Your task to perform on an android device: open app "Adobe Acrobat Reader: Edit PDF" Image 0: 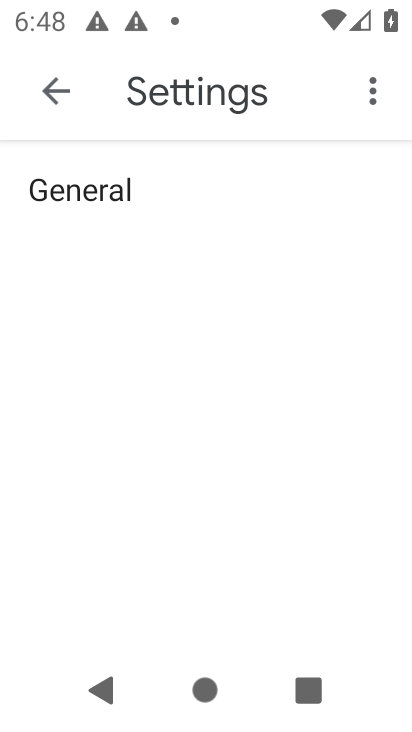
Step 0: press home button
Your task to perform on an android device: open app "Adobe Acrobat Reader: Edit PDF" Image 1: 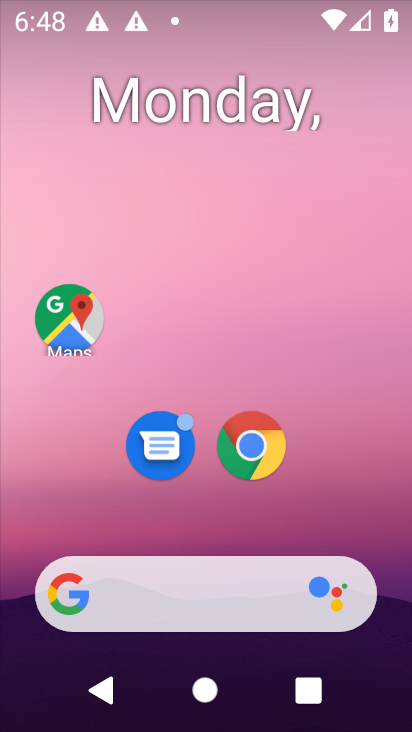
Step 1: drag from (363, 540) to (297, 50)
Your task to perform on an android device: open app "Adobe Acrobat Reader: Edit PDF" Image 2: 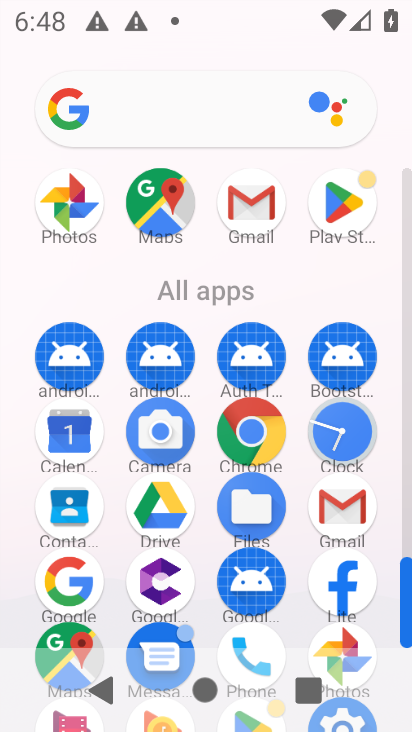
Step 2: click (338, 207)
Your task to perform on an android device: open app "Adobe Acrobat Reader: Edit PDF" Image 3: 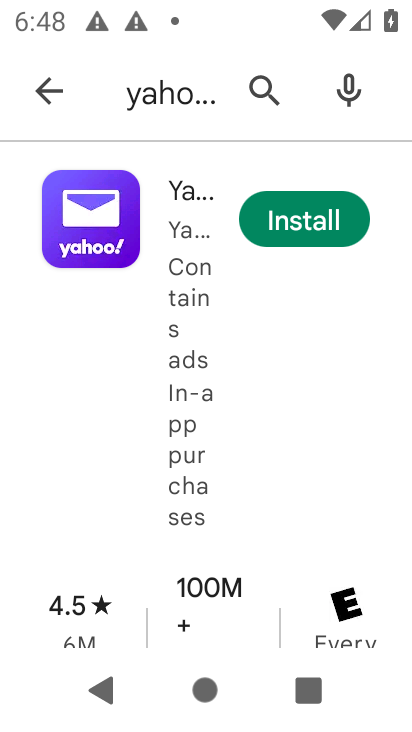
Step 3: press back button
Your task to perform on an android device: open app "Adobe Acrobat Reader: Edit PDF" Image 4: 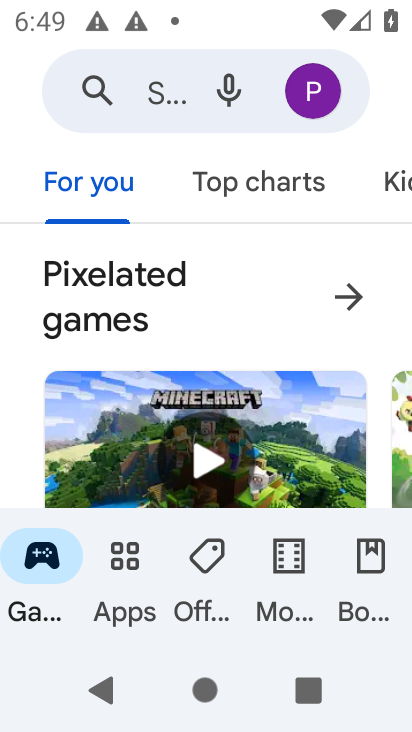
Step 4: click (162, 100)
Your task to perform on an android device: open app "Adobe Acrobat Reader: Edit PDF" Image 5: 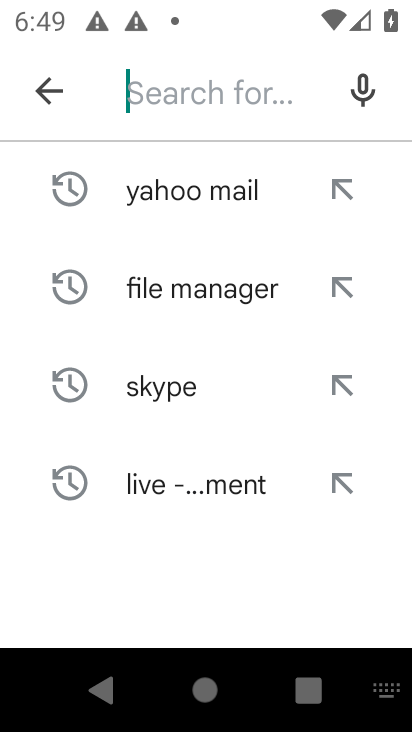
Step 5: type "Adobe Acrobat Reader: Edit PDF"
Your task to perform on an android device: open app "Adobe Acrobat Reader: Edit PDF" Image 6: 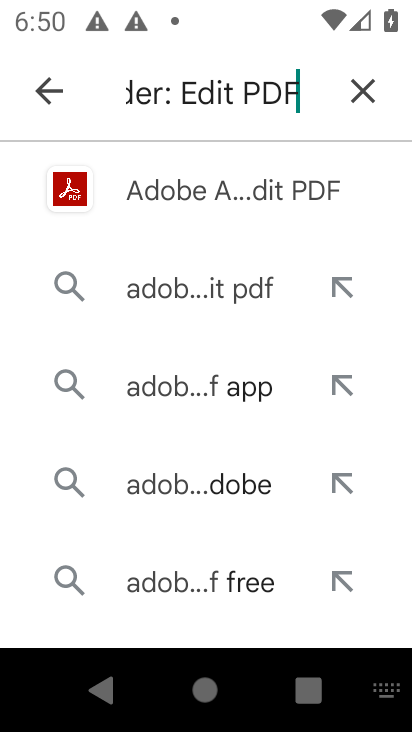
Step 6: click (195, 196)
Your task to perform on an android device: open app "Adobe Acrobat Reader: Edit PDF" Image 7: 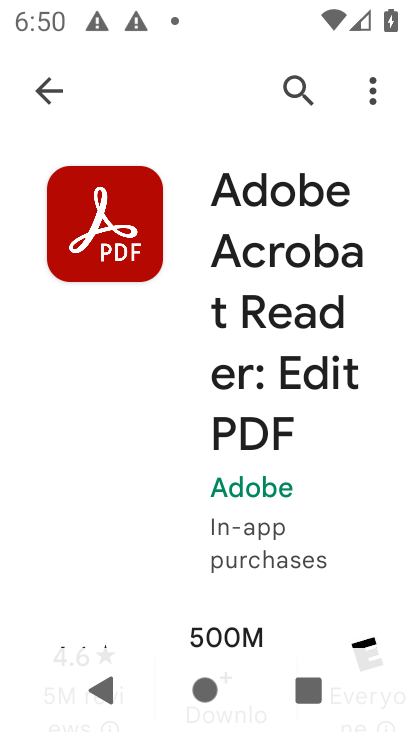
Step 7: task complete